Your task to perform on an android device: Search for vegetarian restaurants on Maps Image 0: 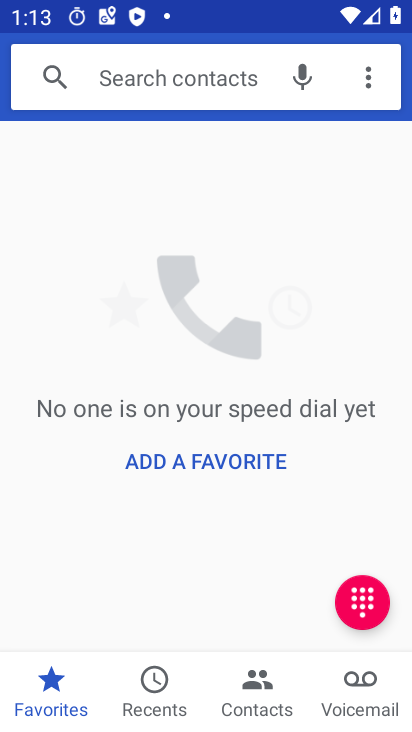
Step 0: press home button
Your task to perform on an android device: Search for vegetarian restaurants on Maps Image 1: 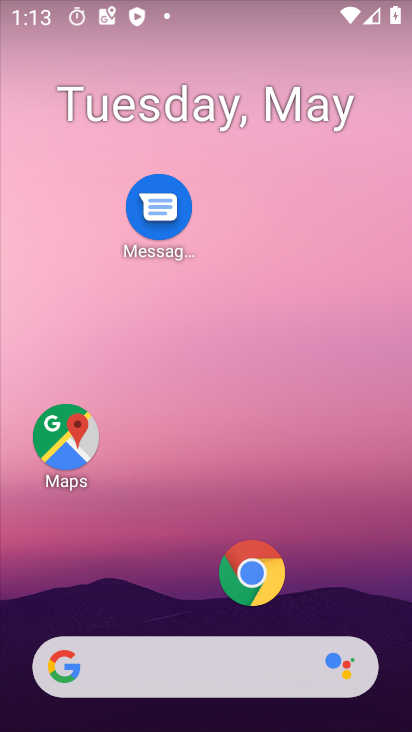
Step 1: click (45, 415)
Your task to perform on an android device: Search for vegetarian restaurants on Maps Image 2: 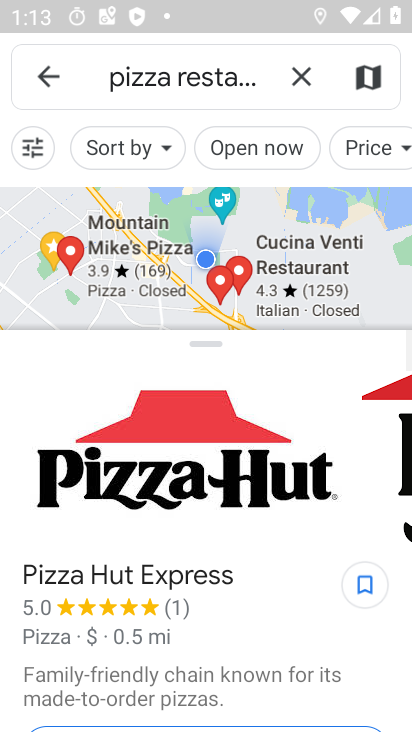
Step 2: click (308, 74)
Your task to perform on an android device: Search for vegetarian restaurants on Maps Image 3: 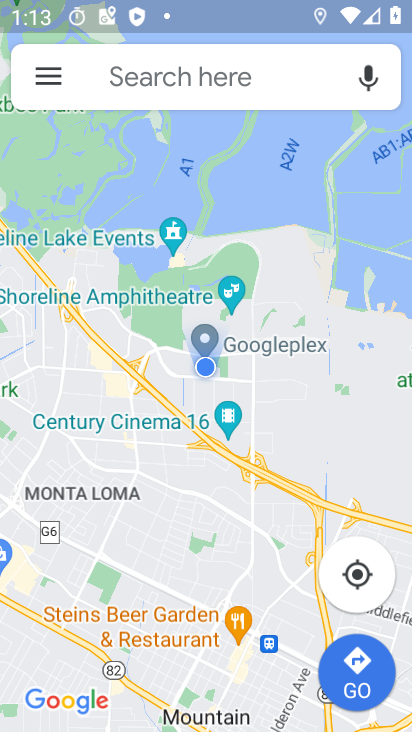
Step 3: click (182, 58)
Your task to perform on an android device: Search for vegetarian restaurants on Maps Image 4: 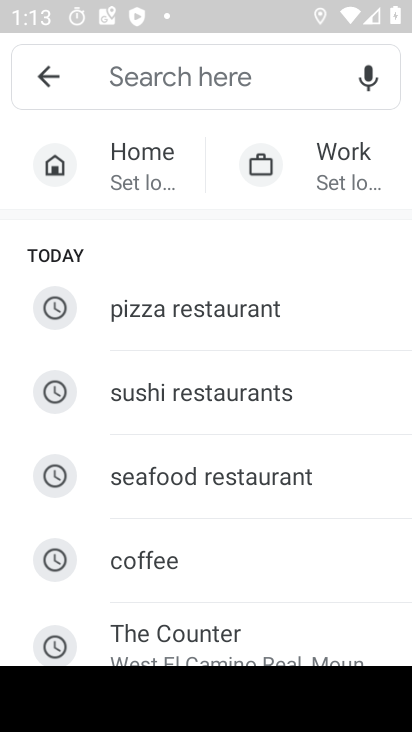
Step 4: type "Vegetarian restaurants"
Your task to perform on an android device: Search for vegetarian restaurants on Maps Image 5: 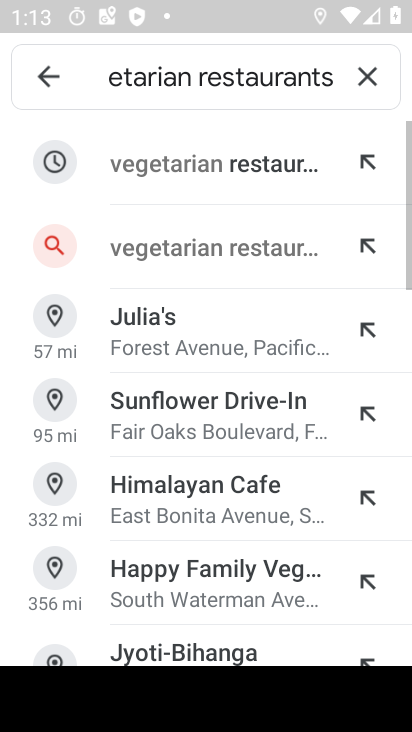
Step 5: click (192, 165)
Your task to perform on an android device: Search for vegetarian restaurants on Maps Image 6: 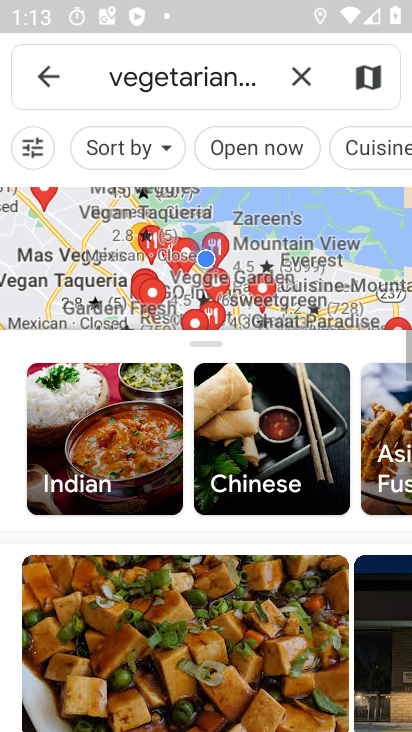
Step 6: task complete